Your task to perform on an android device: turn on location history Image 0: 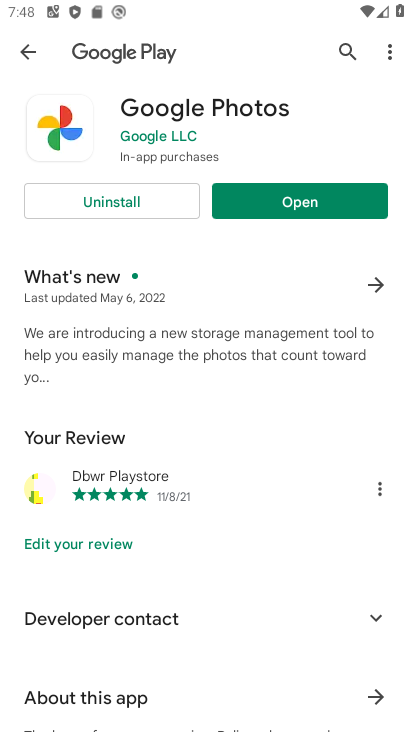
Step 0: press home button
Your task to perform on an android device: turn on location history Image 1: 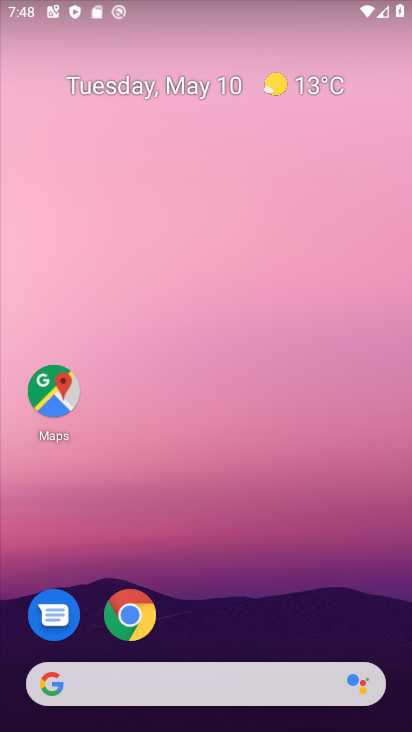
Step 1: click (135, 157)
Your task to perform on an android device: turn on location history Image 2: 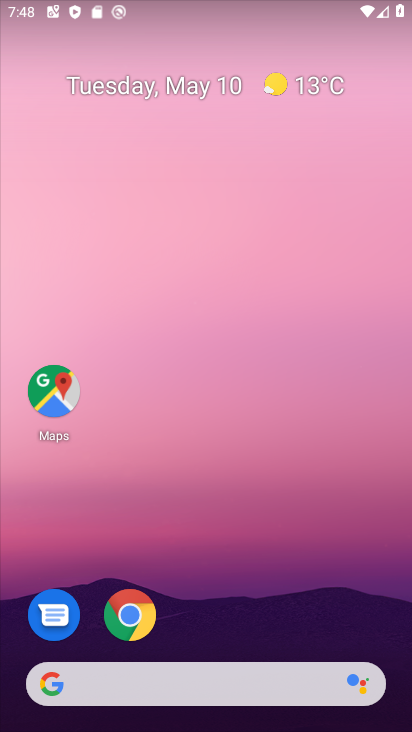
Step 2: drag from (215, 591) to (286, 129)
Your task to perform on an android device: turn on location history Image 3: 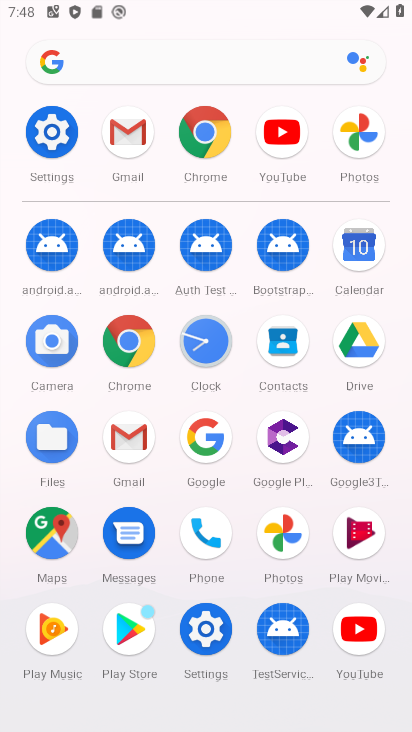
Step 3: click (48, 536)
Your task to perform on an android device: turn on location history Image 4: 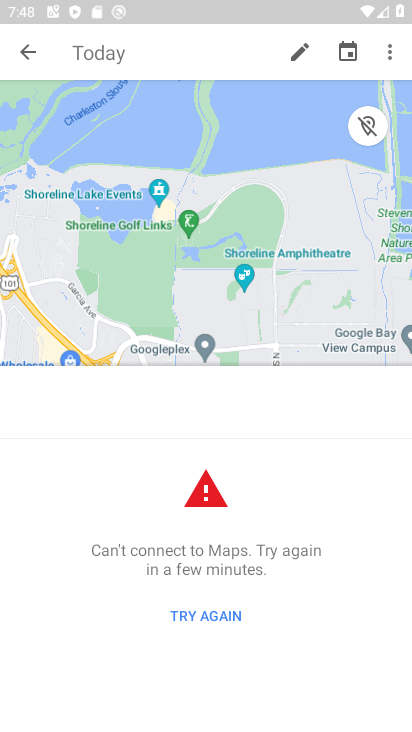
Step 4: click (389, 52)
Your task to perform on an android device: turn on location history Image 5: 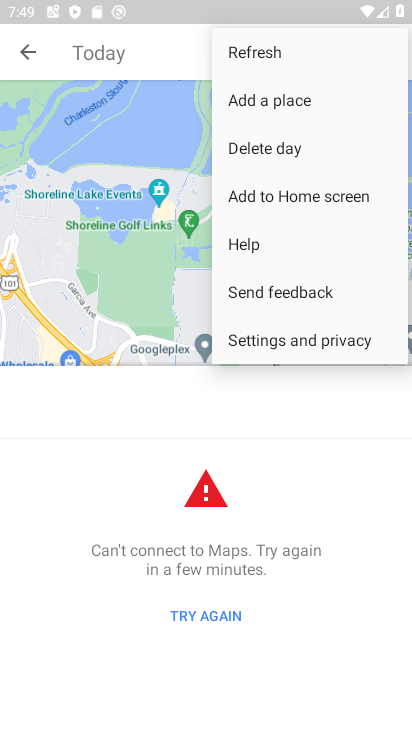
Step 5: click (282, 344)
Your task to perform on an android device: turn on location history Image 6: 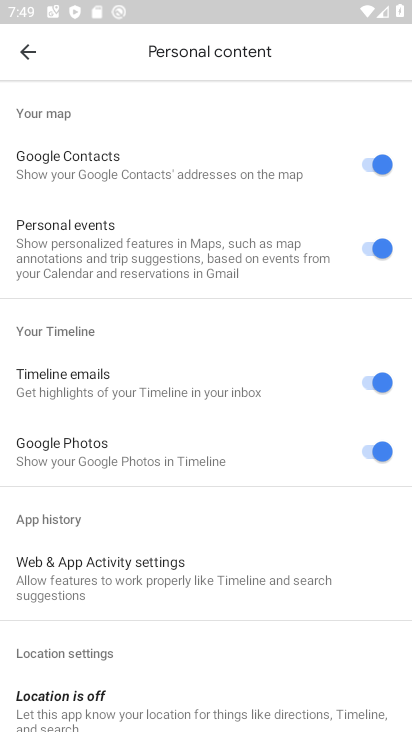
Step 6: drag from (229, 607) to (205, 363)
Your task to perform on an android device: turn on location history Image 7: 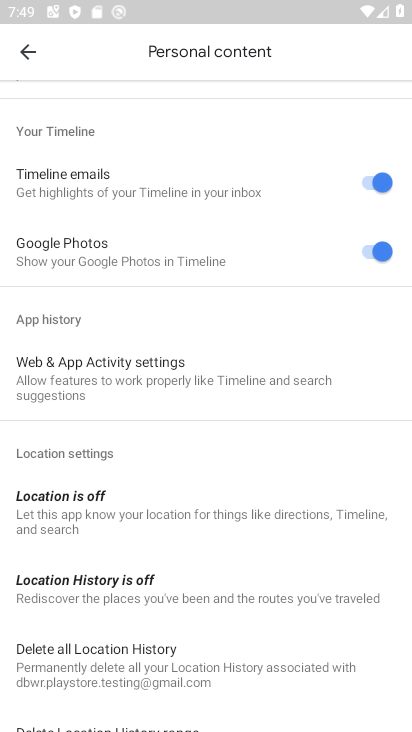
Step 7: click (78, 578)
Your task to perform on an android device: turn on location history Image 8: 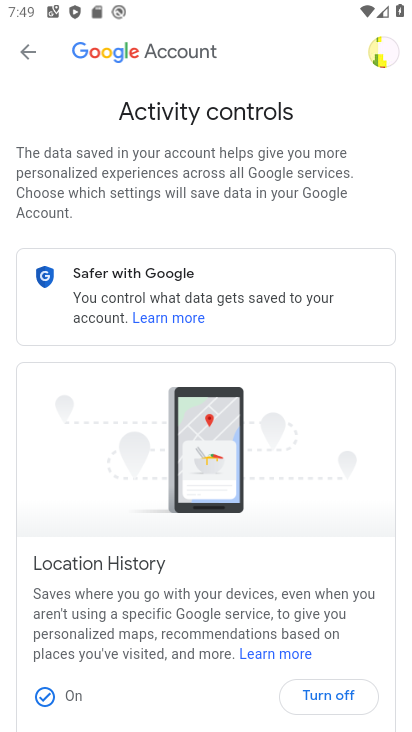
Step 8: task complete